Your task to perform on an android device: Open calendar and show me the fourth week of next month Image 0: 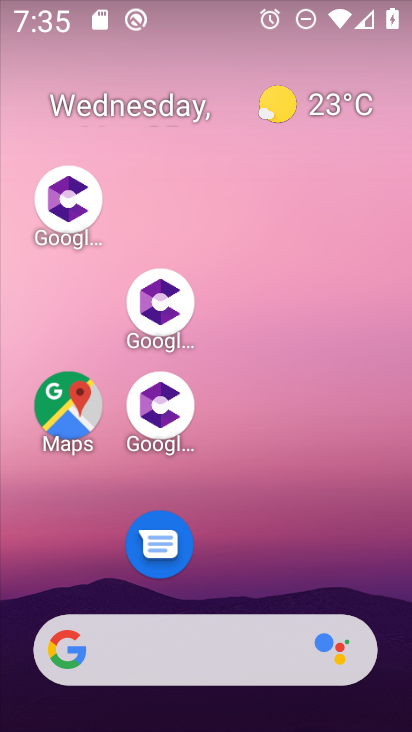
Step 0: drag from (295, 510) to (173, 23)
Your task to perform on an android device: Open calendar and show me the fourth week of next month Image 1: 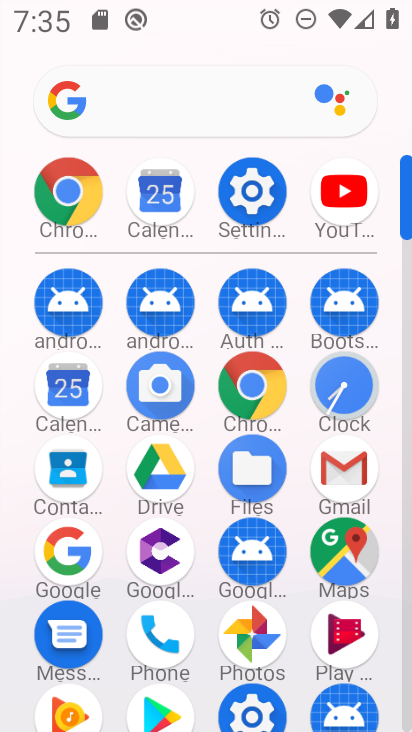
Step 1: click (70, 383)
Your task to perform on an android device: Open calendar and show me the fourth week of next month Image 2: 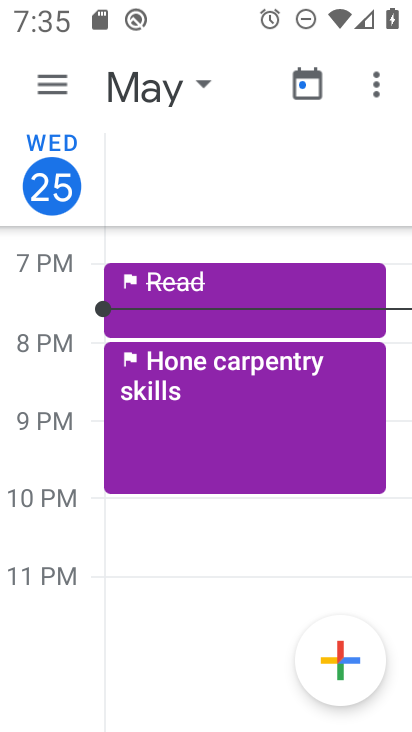
Step 2: click (52, 67)
Your task to perform on an android device: Open calendar and show me the fourth week of next month Image 3: 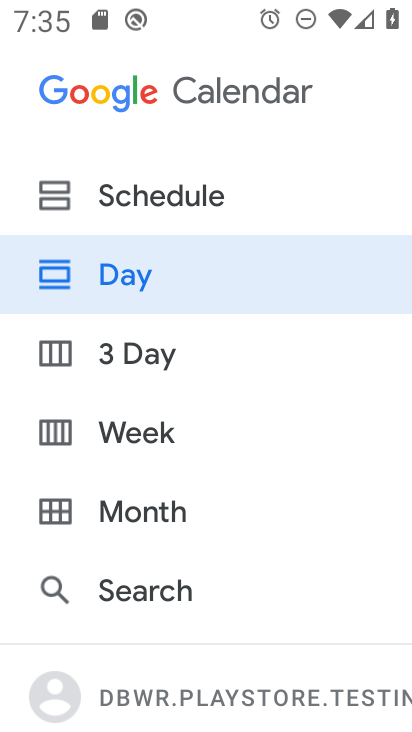
Step 3: click (132, 429)
Your task to perform on an android device: Open calendar and show me the fourth week of next month Image 4: 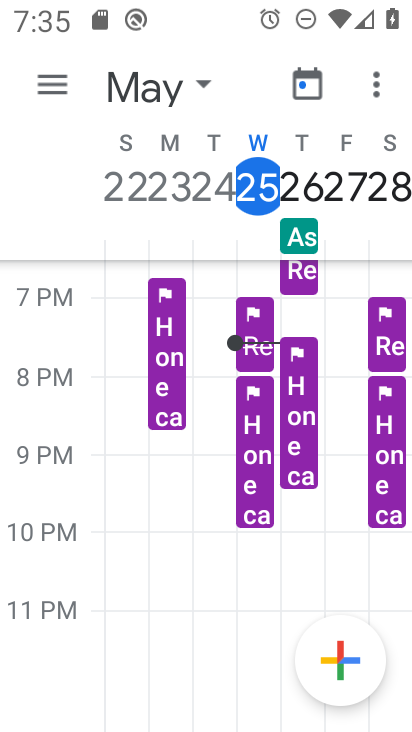
Step 4: click (200, 83)
Your task to perform on an android device: Open calendar and show me the fourth week of next month Image 5: 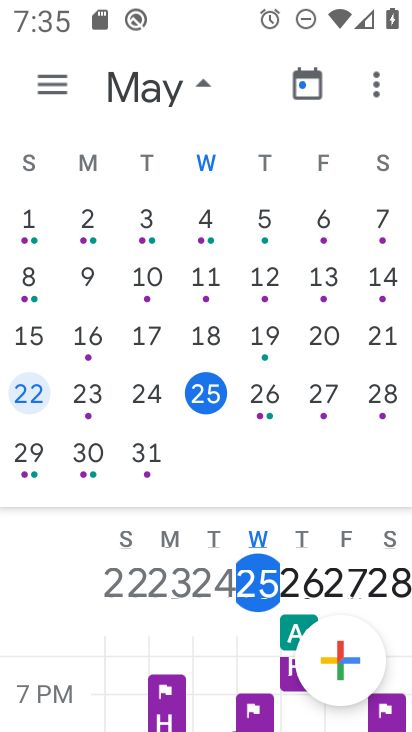
Step 5: drag from (380, 279) to (19, 268)
Your task to perform on an android device: Open calendar and show me the fourth week of next month Image 6: 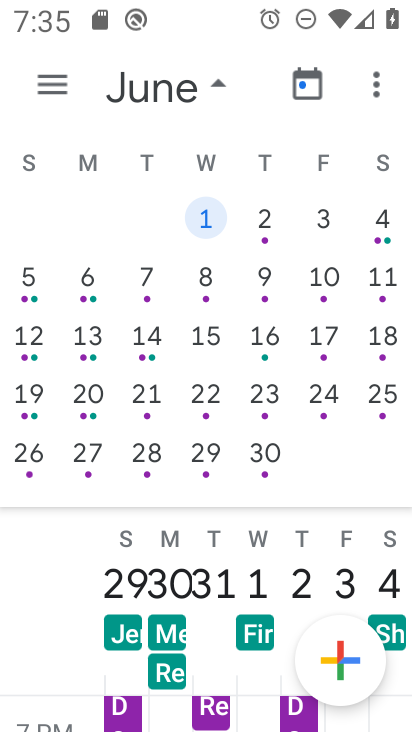
Step 6: click (206, 399)
Your task to perform on an android device: Open calendar and show me the fourth week of next month Image 7: 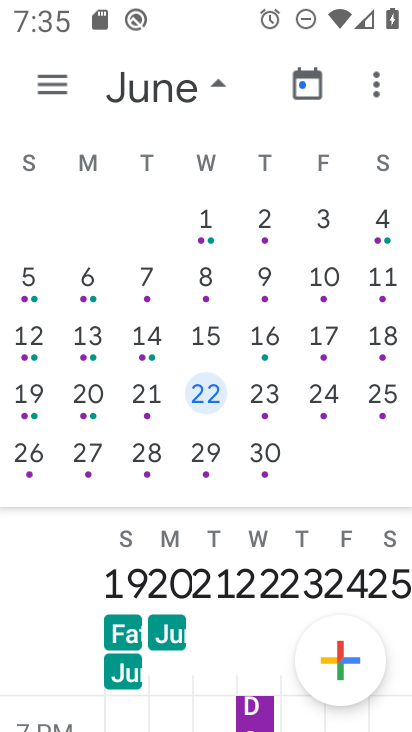
Step 7: task complete